Your task to perform on an android device: Search for vegetarian restaurants on Maps Image 0: 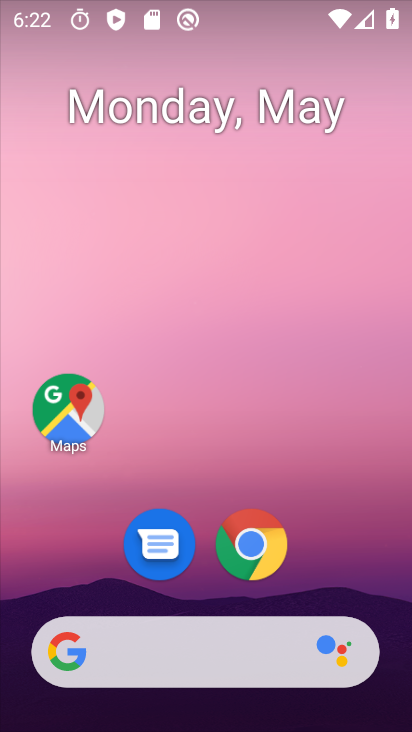
Step 0: click (78, 409)
Your task to perform on an android device: Search for vegetarian restaurants on Maps Image 1: 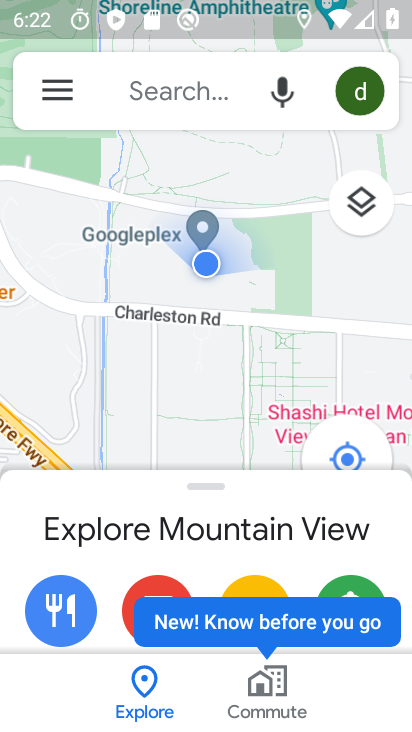
Step 1: click (58, 98)
Your task to perform on an android device: Search for vegetarian restaurants on Maps Image 2: 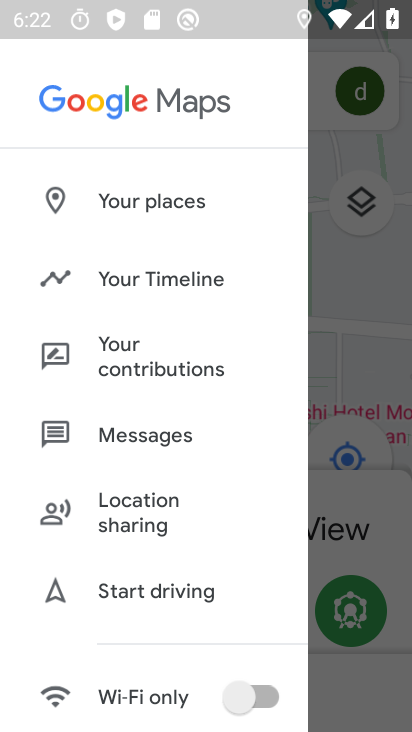
Step 2: click (375, 269)
Your task to perform on an android device: Search for vegetarian restaurants on Maps Image 3: 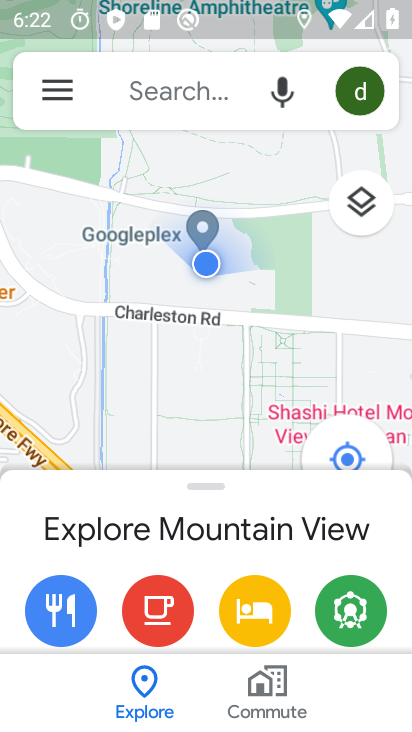
Step 3: click (221, 97)
Your task to perform on an android device: Search for vegetarian restaurants on Maps Image 4: 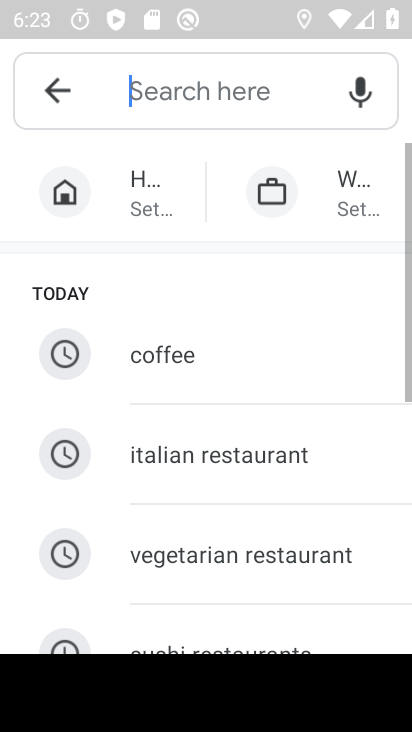
Step 4: click (227, 547)
Your task to perform on an android device: Search for vegetarian restaurants on Maps Image 5: 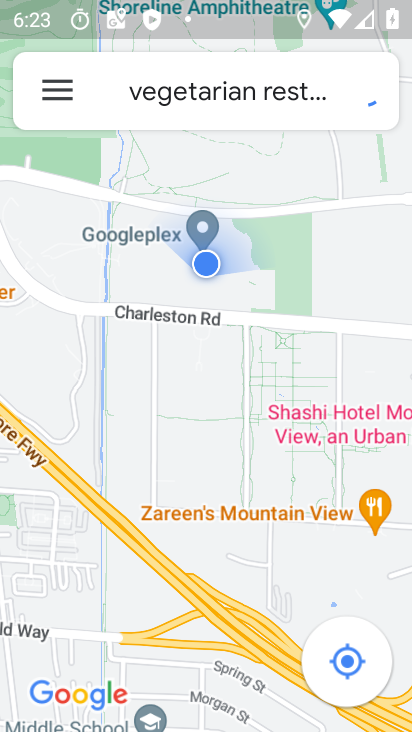
Step 5: task complete